Your task to perform on an android device: change your default location settings in chrome Image 0: 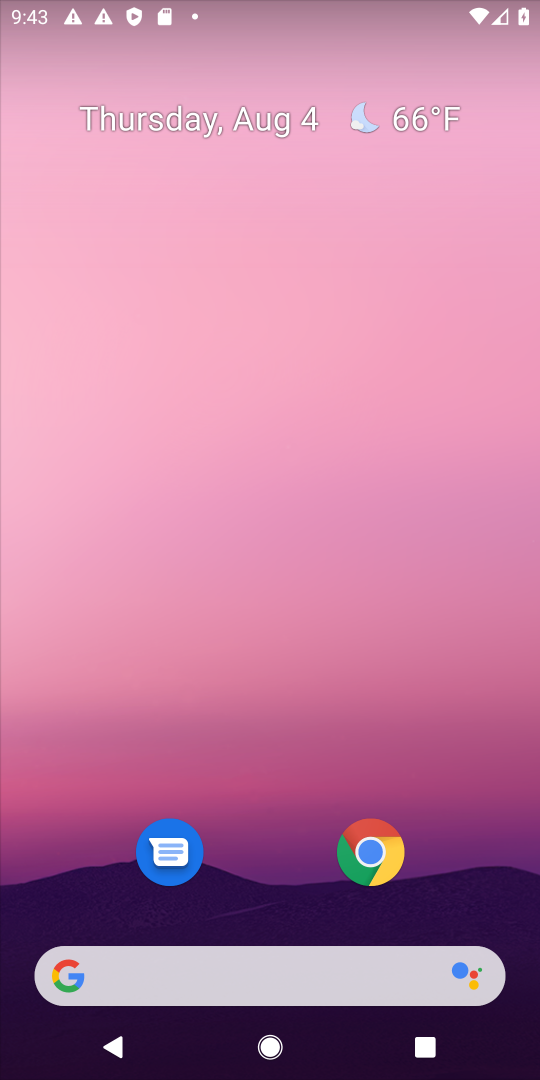
Step 0: drag from (162, 913) to (186, 349)
Your task to perform on an android device: change your default location settings in chrome Image 1: 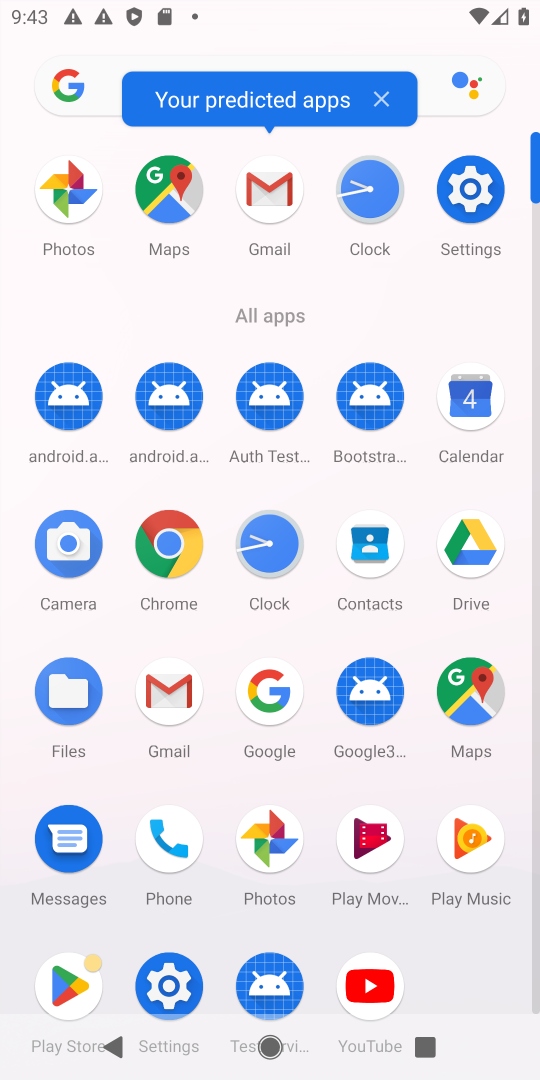
Step 1: click (171, 558)
Your task to perform on an android device: change your default location settings in chrome Image 2: 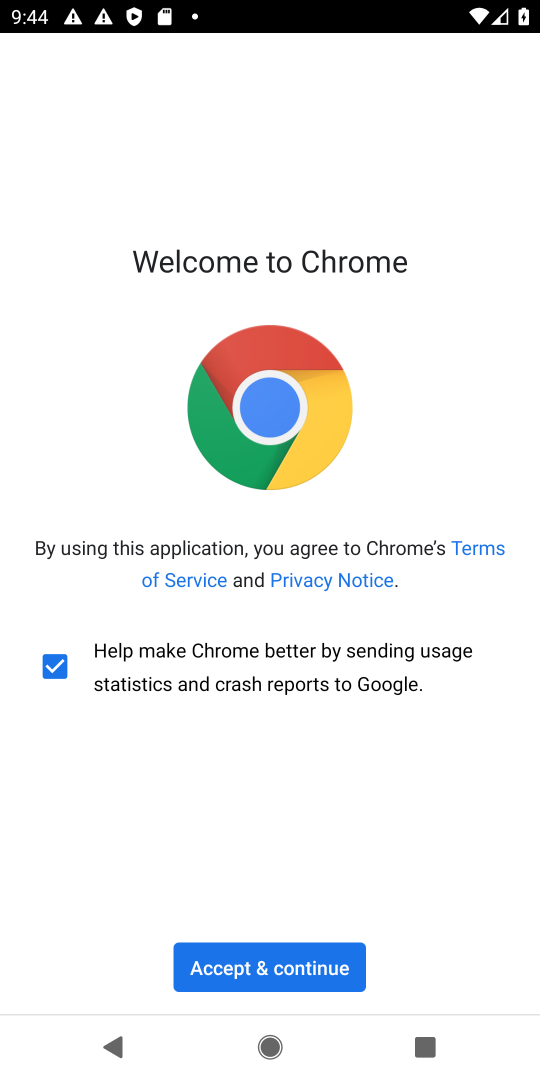
Step 2: click (255, 976)
Your task to perform on an android device: change your default location settings in chrome Image 3: 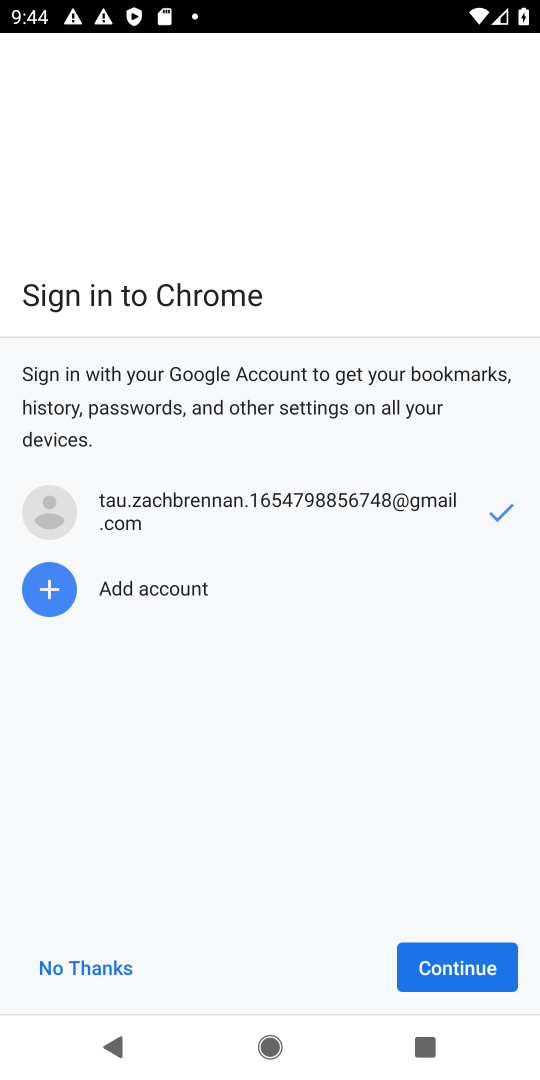
Step 3: click (412, 962)
Your task to perform on an android device: change your default location settings in chrome Image 4: 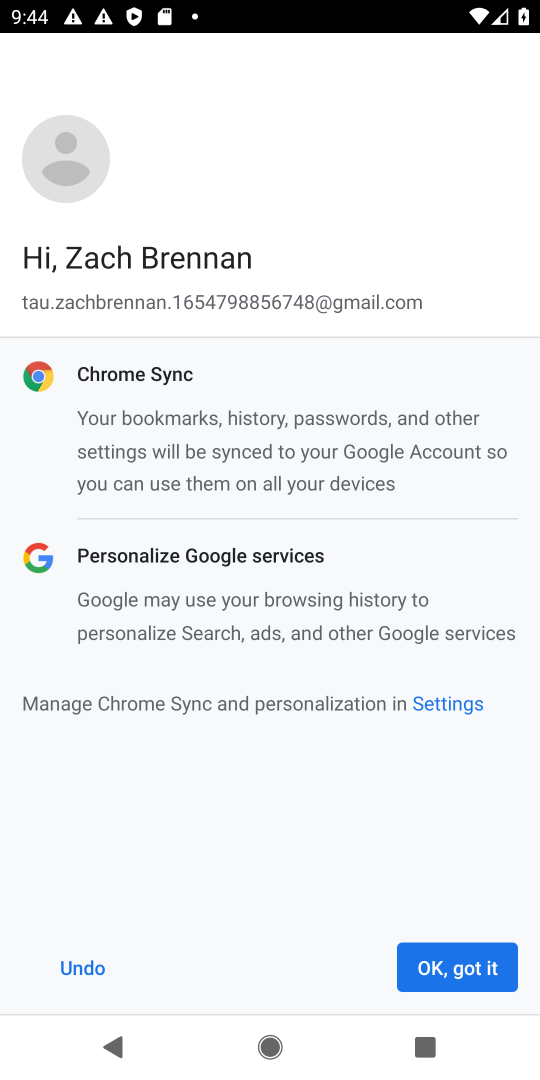
Step 4: click (458, 979)
Your task to perform on an android device: change your default location settings in chrome Image 5: 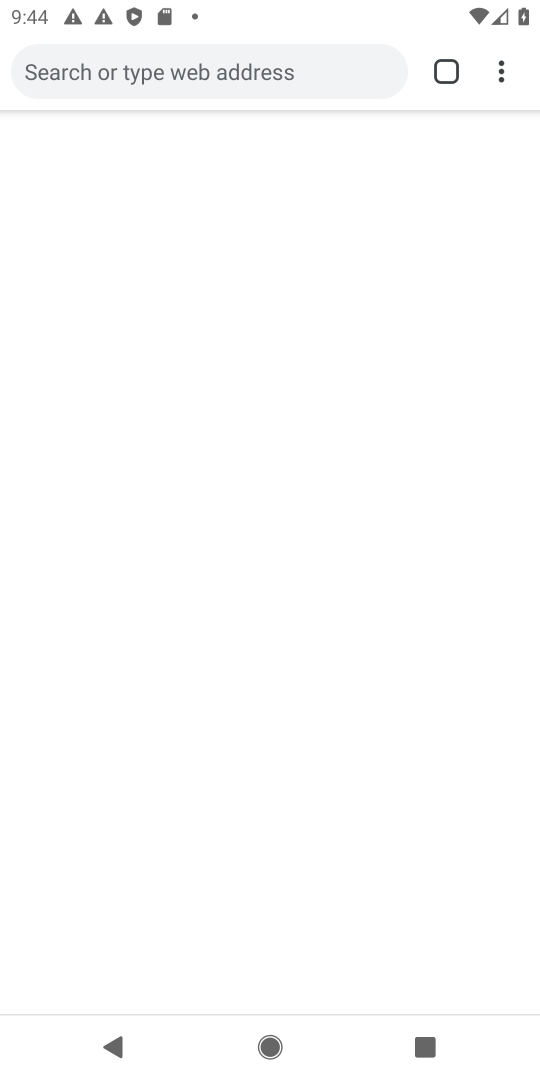
Step 5: click (500, 65)
Your task to perform on an android device: change your default location settings in chrome Image 6: 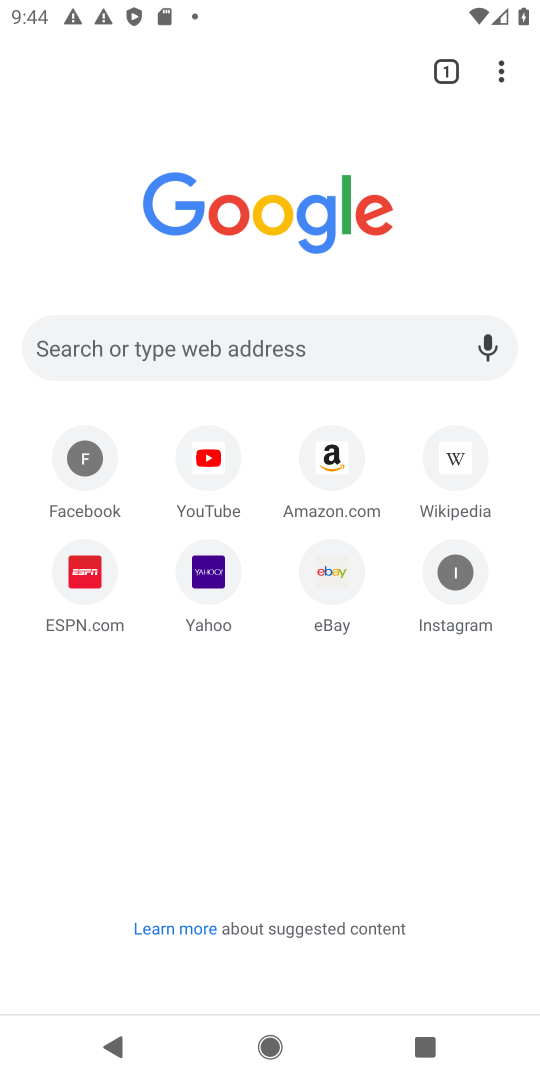
Step 6: click (509, 73)
Your task to perform on an android device: change your default location settings in chrome Image 7: 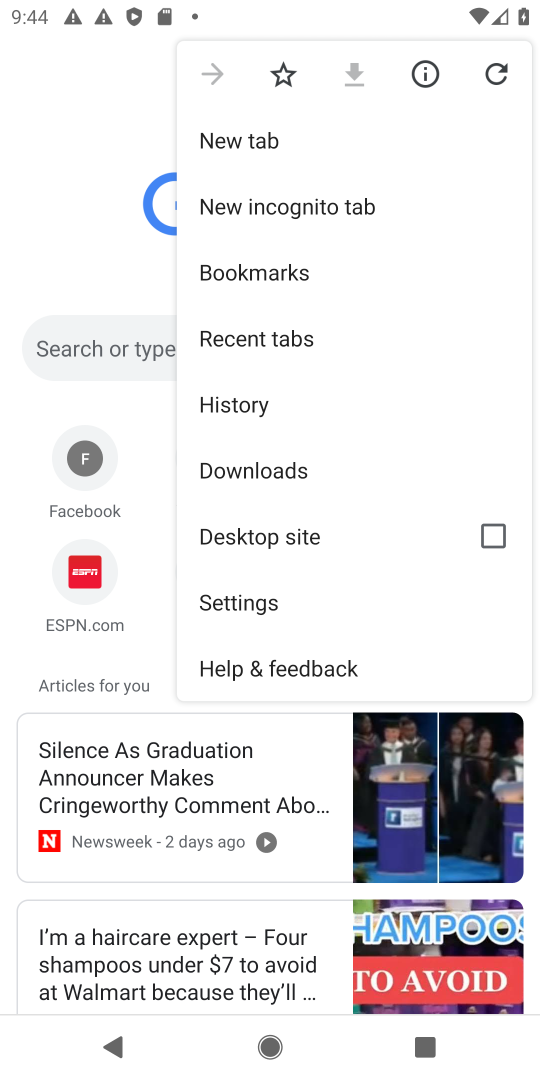
Step 7: click (239, 600)
Your task to perform on an android device: change your default location settings in chrome Image 8: 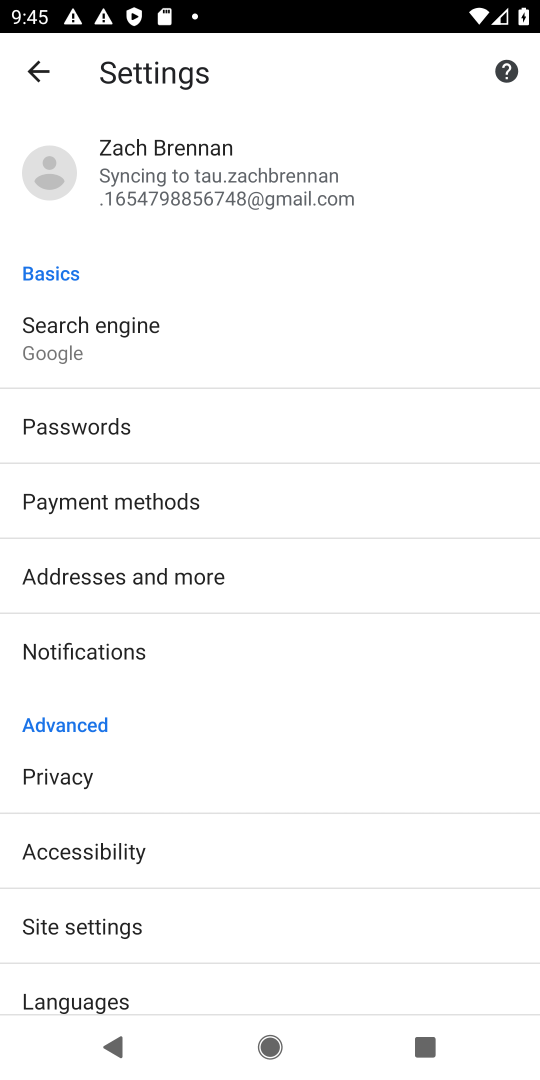
Step 8: drag from (138, 979) to (208, 585)
Your task to perform on an android device: change your default location settings in chrome Image 9: 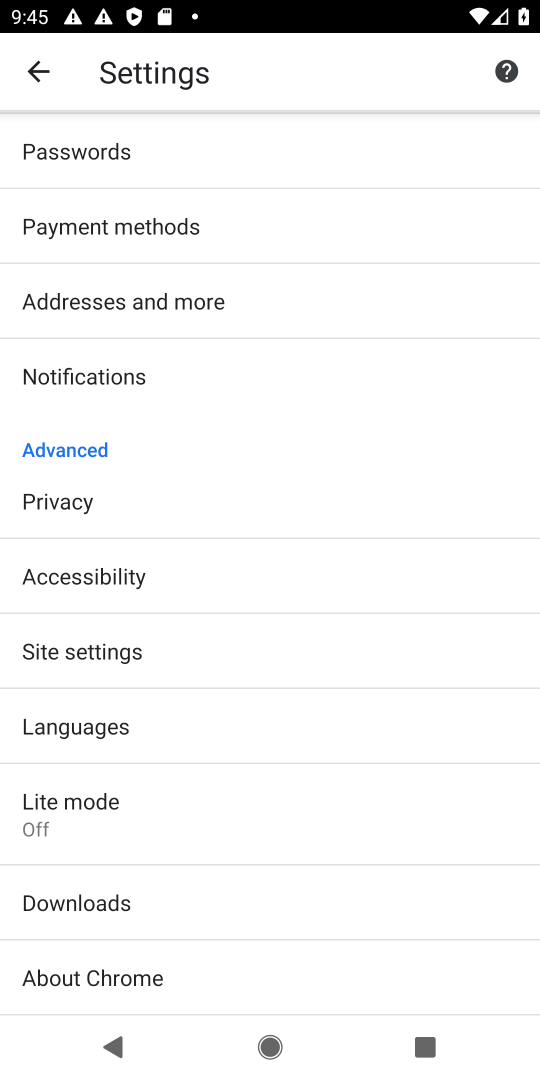
Step 9: click (89, 716)
Your task to perform on an android device: change your default location settings in chrome Image 10: 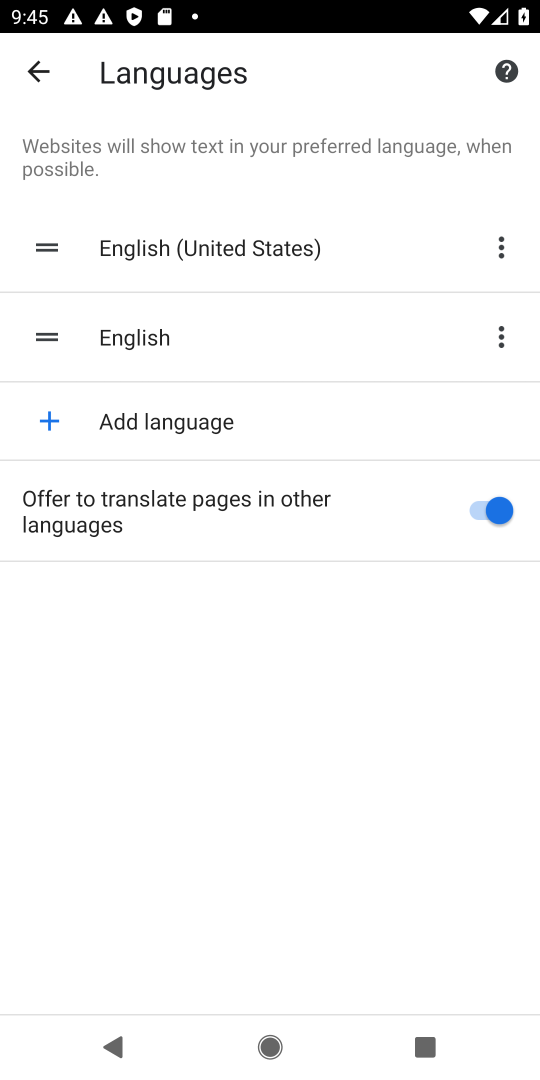
Step 10: click (48, 63)
Your task to perform on an android device: change your default location settings in chrome Image 11: 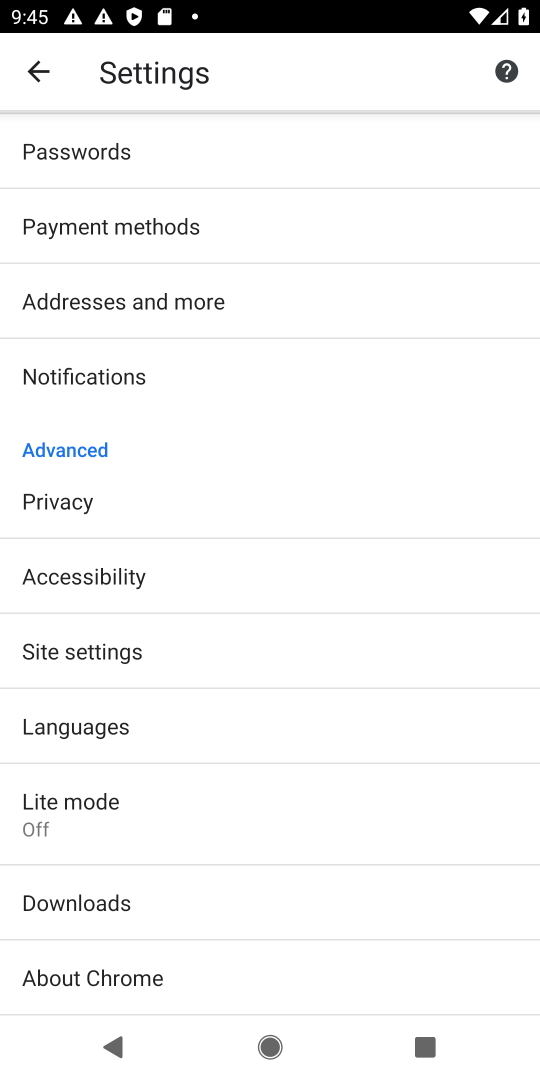
Step 11: click (172, 639)
Your task to perform on an android device: change your default location settings in chrome Image 12: 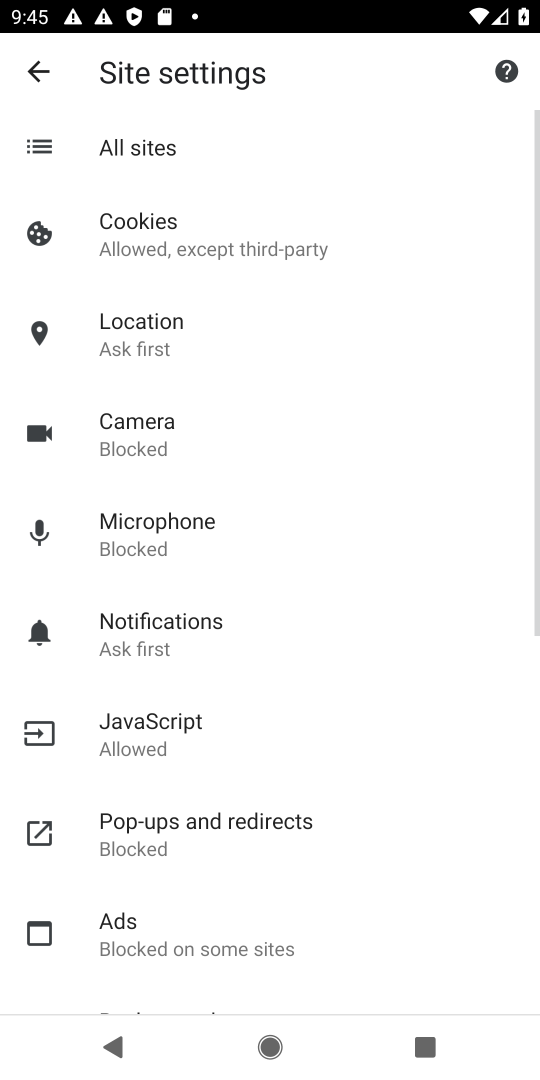
Step 12: click (173, 310)
Your task to perform on an android device: change your default location settings in chrome Image 13: 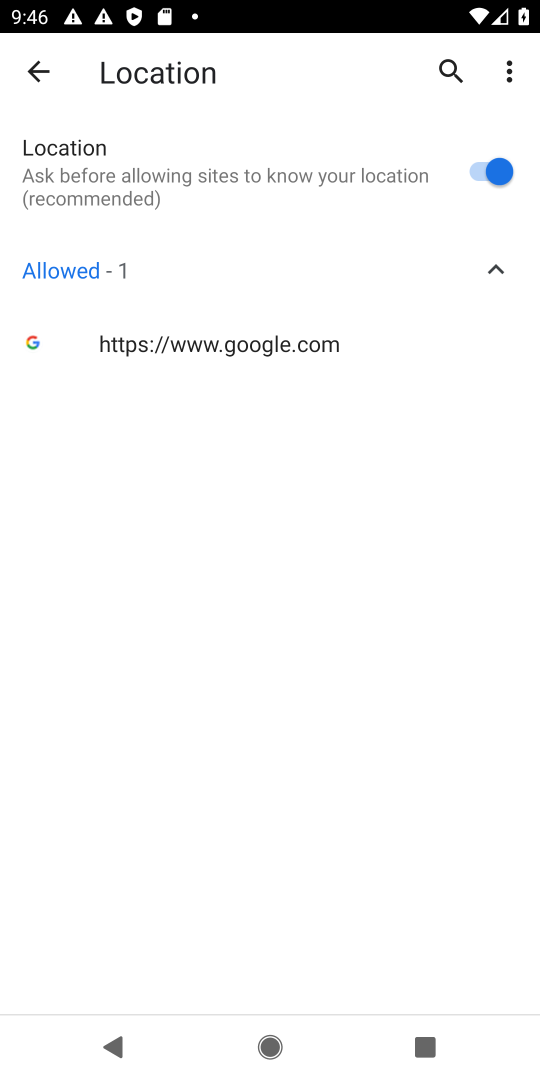
Step 13: task complete